Your task to perform on an android device: Go to Android settings Image 0: 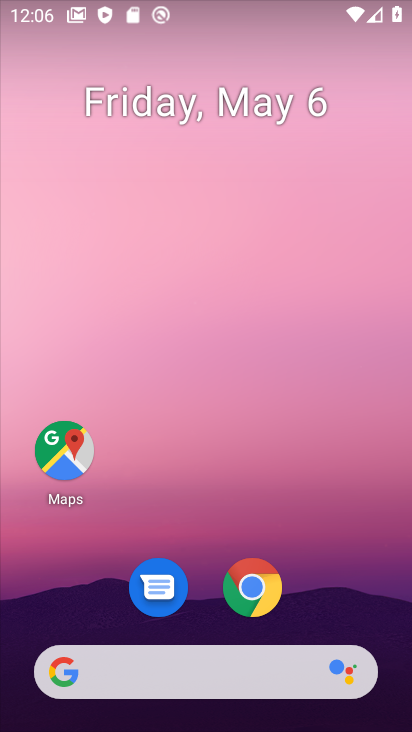
Step 0: drag from (39, 576) to (223, 234)
Your task to perform on an android device: Go to Android settings Image 1: 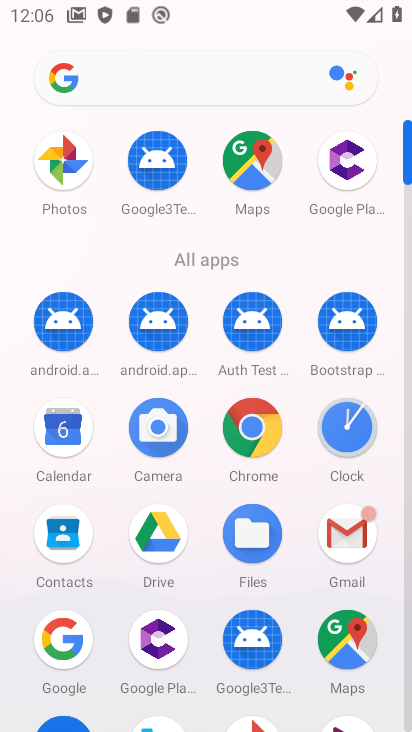
Step 1: drag from (220, 645) to (296, 225)
Your task to perform on an android device: Go to Android settings Image 2: 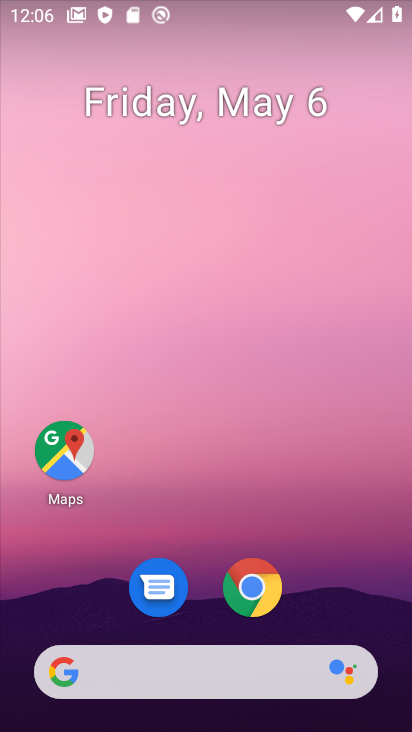
Step 2: drag from (69, 482) to (218, 204)
Your task to perform on an android device: Go to Android settings Image 3: 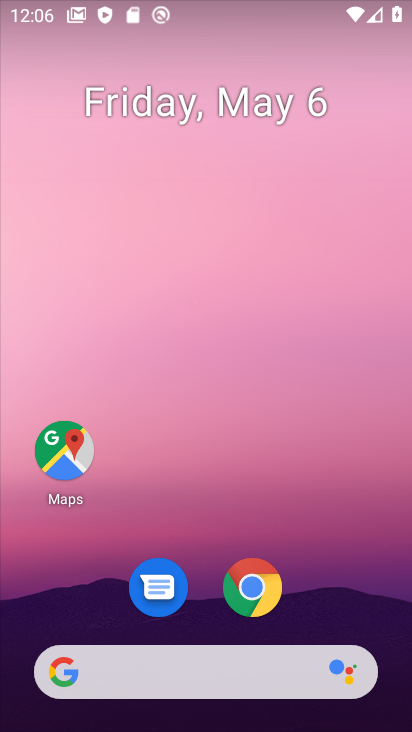
Step 3: drag from (67, 558) to (303, 97)
Your task to perform on an android device: Go to Android settings Image 4: 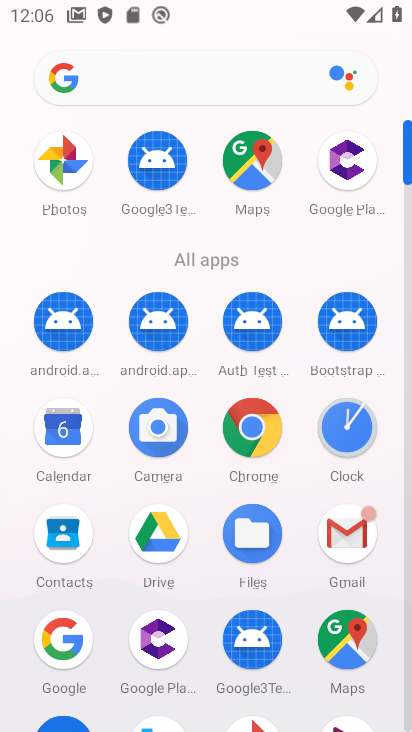
Step 4: drag from (20, 651) to (56, 218)
Your task to perform on an android device: Go to Android settings Image 5: 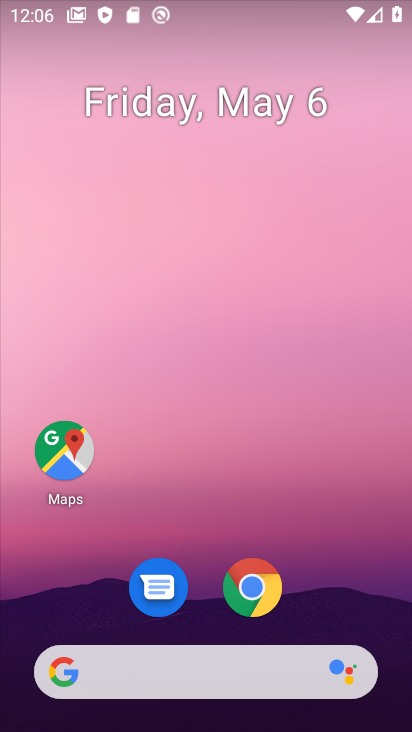
Step 5: drag from (24, 464) to (148, 213)
Your task to perform on an android device: Go to Android settings Image 6: 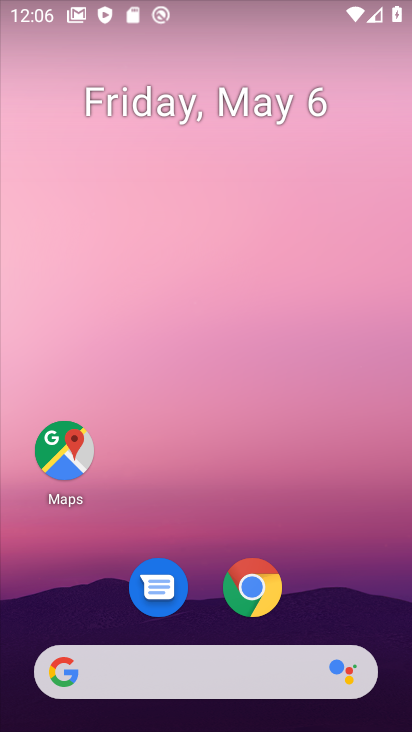
Step 6: drag from (51, 503) to (157, 215)
Your task to perform on an android device: Go to Android settings Image 7: 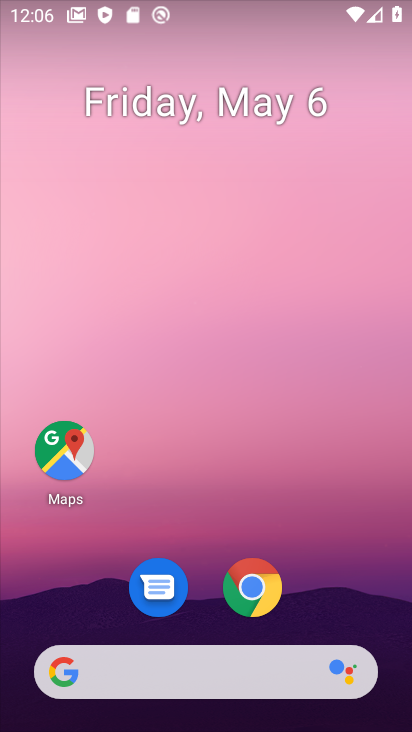
Step 7: drag from (66, 419) to (247, 166)
Your task to perform on an android device: Go to Android settings Image 8: 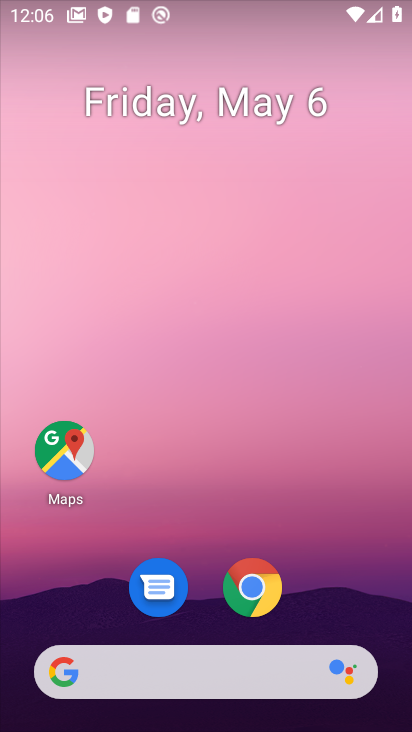
Step 8: drag from (13, 730) to (158, 161)
Your task to perform on an android device: Go to Android settings Image 9: 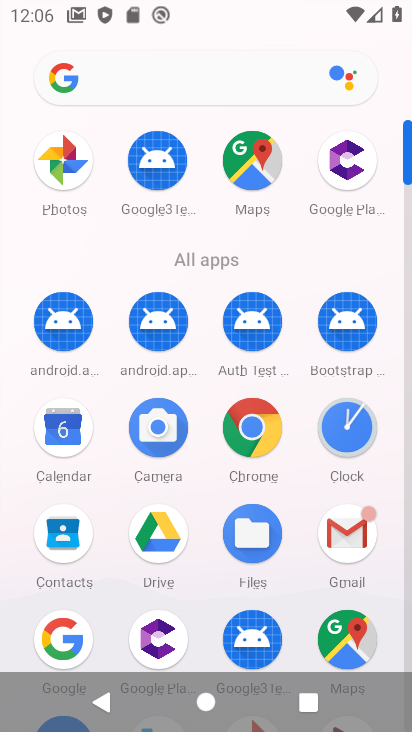
Step 9: drag from (16, 531) to (139, 206)
Your task to perform on an android device: Go to Android settings Image 10: 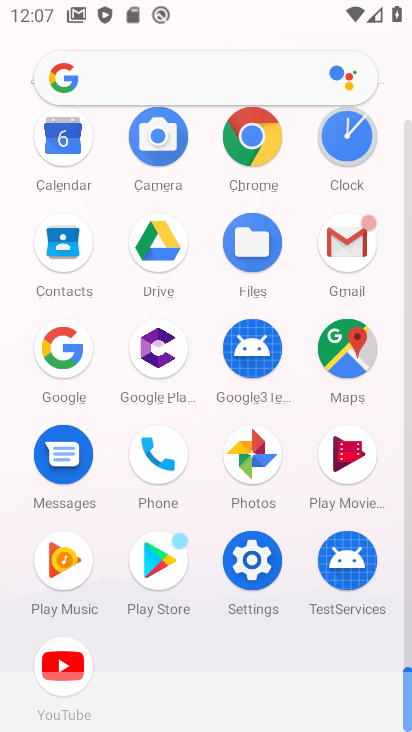
Step 10: click (238, 553)
Your task to perform on an android device: Go to Android settings Image 11: 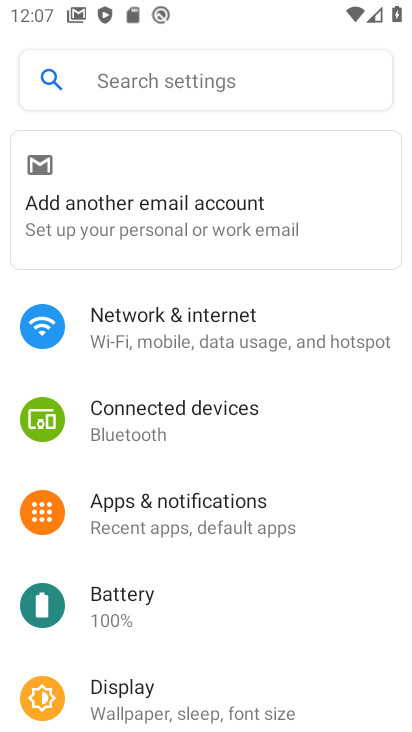
Step 11: drag from (165, 672) to (292, 331)
Your task to perform on an android device: Go to Android settings Image 12: 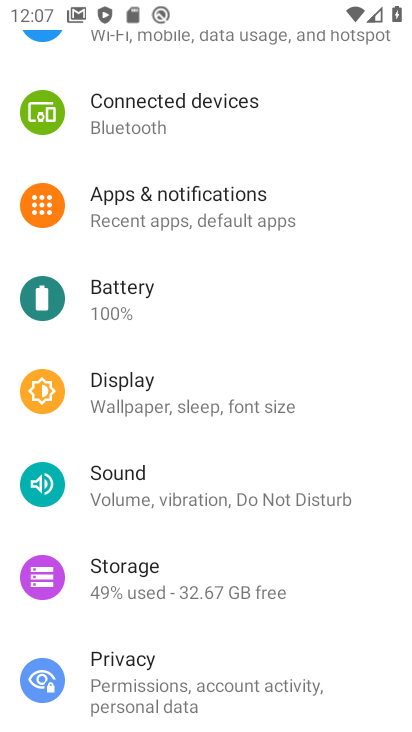
Step 12: drag from (146, 625) to (264, 256)
Your task to perform on an android device: Go to Android settings Image 13: 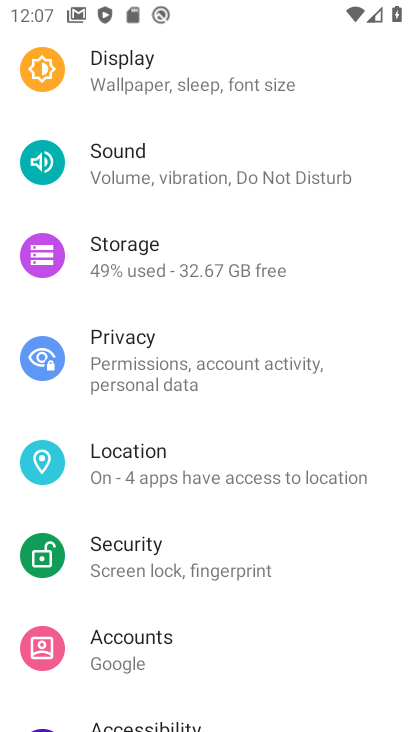
Step 13: drag from (171, 671) to (266, 310)
Your task to perform on an android device: Go to Android settings Image 14: 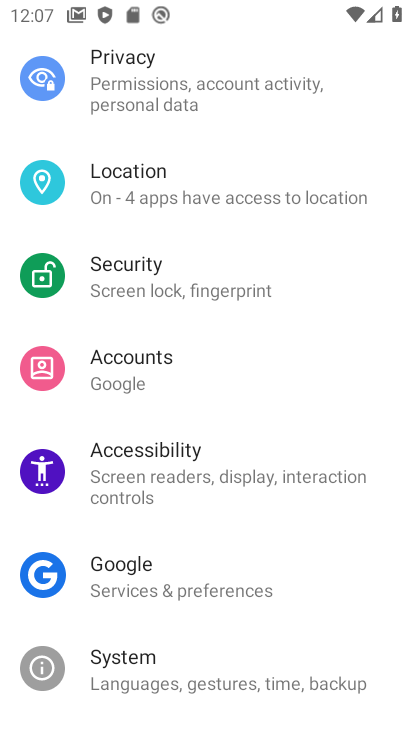
Step 14: drag from (161, 698) to (256, 375)
Your task to perform on an android device: Go to Android settings Image 15: 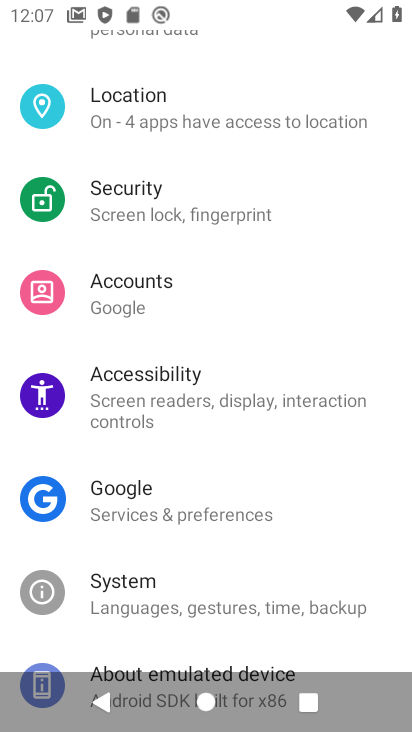
Step 15: click (187, 643)
Your task to perform on an android device: Go to Android settings Image 16: 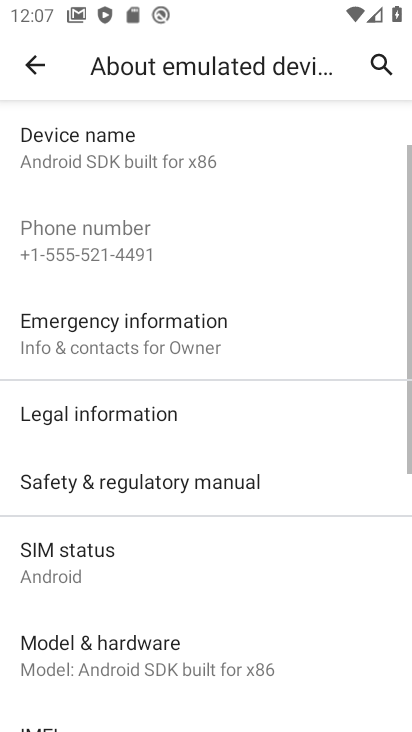
Step 16: drag from (141, 686) to (271, 361)
Your task to perform on an android device: Go to Android settings Image 17: 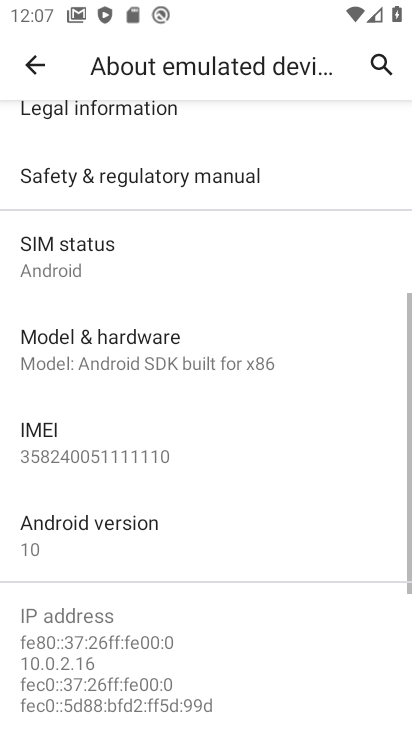
Step 17: click (118, 534)
Your task to perform on an android device: Go to Android settings Image 18: 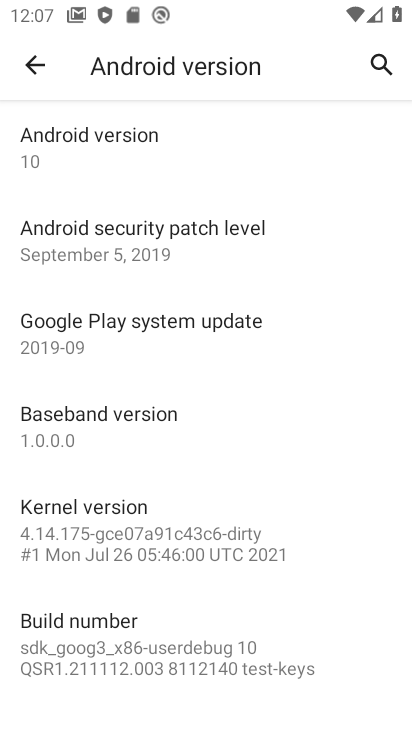
Step 18: task complete